Your task to perform on an android device: Go to display settings Image 0: 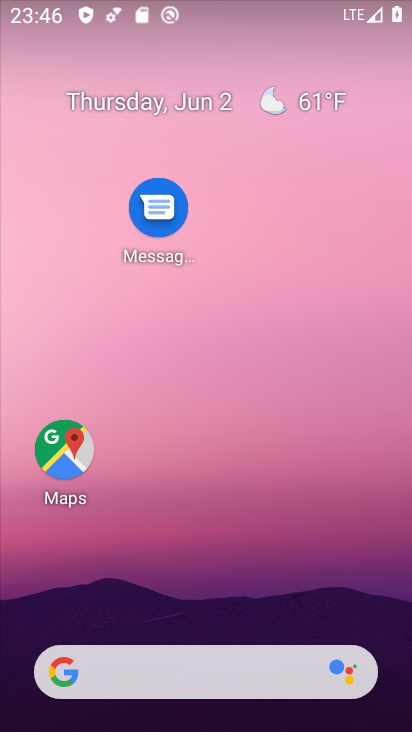
Step 0: drag from (224, 625) to (309, 19)
Your task to perform on an android device: Go to display settings Image 1: 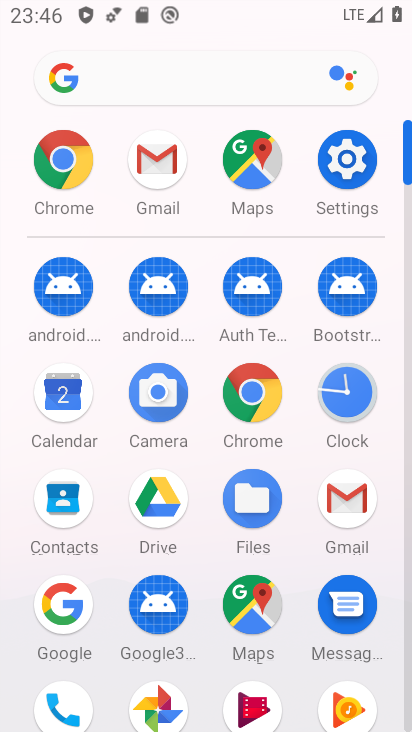
Step 1: click (353, 151)
Your task to perform on an android device: Go to display settings Image 2: 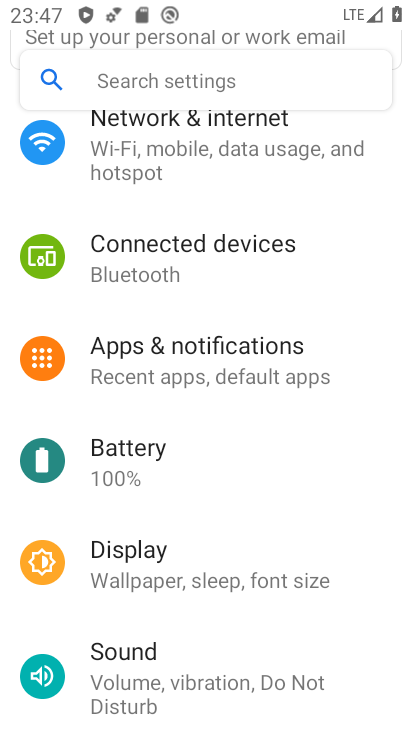
Step 2: click (162, 590)
Your task to perform on an android device: Go to display settings Image 3: 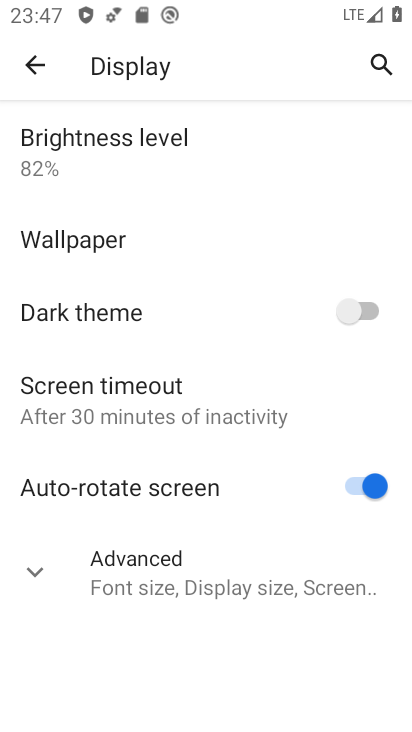
Step 3: click (201, 585)
Your task to perform on an android device: Go to display settings Image 4: 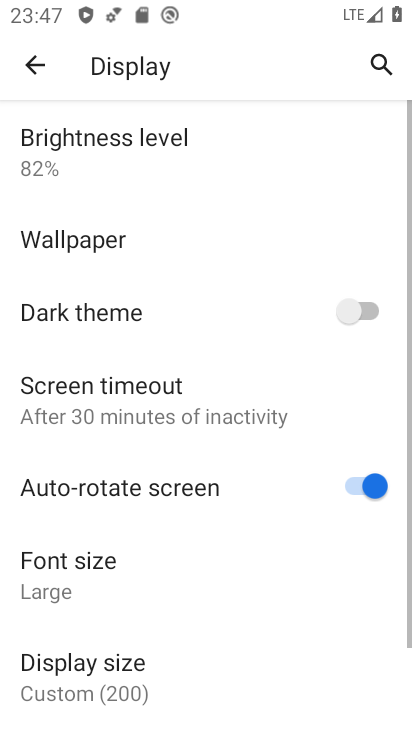
Step 4: task complete